Your task to perform on an android device: open app "Messages" (install if not already installed) and enter user name: "Hersey@inbox.com" and password: "facings" Image 0: 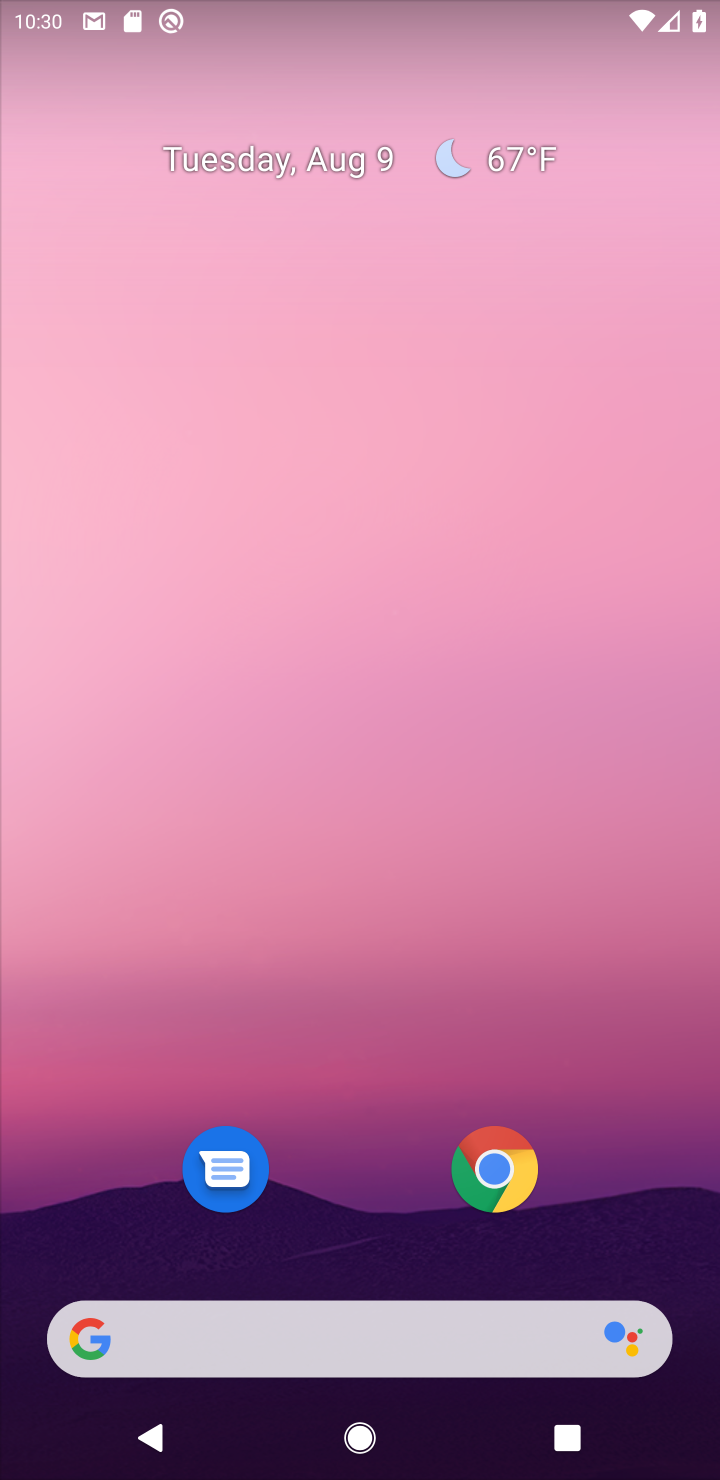
Step 0: press home button
Your task to perform on an android device: open app "Messages" (install if not already installed) and enter user name: "Hersey@inbox.com" and password: "facings" Image 1: 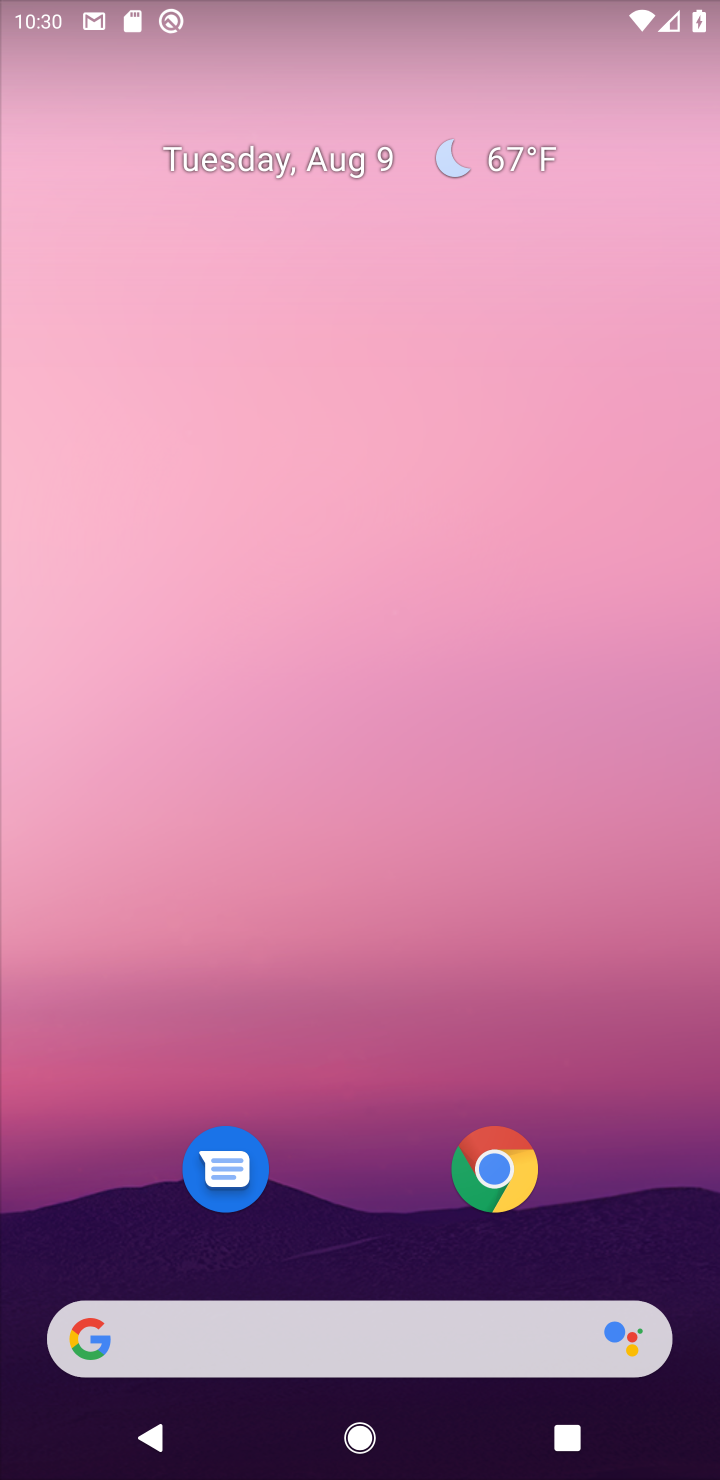
Step 1: drag from (630, 1218) to (675, 116)
Your task to perform on an android device: open app "Messages" (install if not already installed) and enter user name: "Hersey@inbox.com" and password: "facings" Image 2: 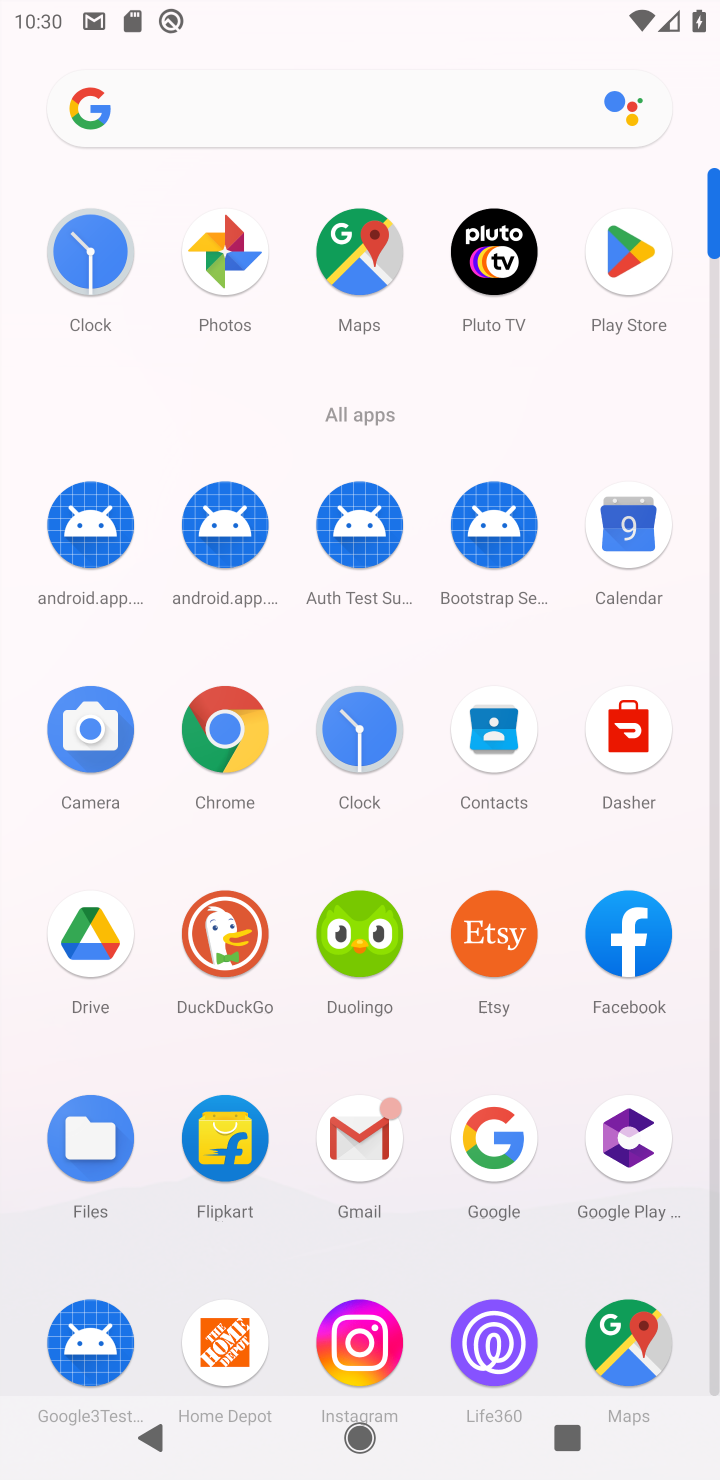
Step 2: click (628, 247)
Your task to perform on an android device: open app "Messages" (install if not already installed) and enter user name: "Hersey@inbox.com" and password: "facings" Image 3: 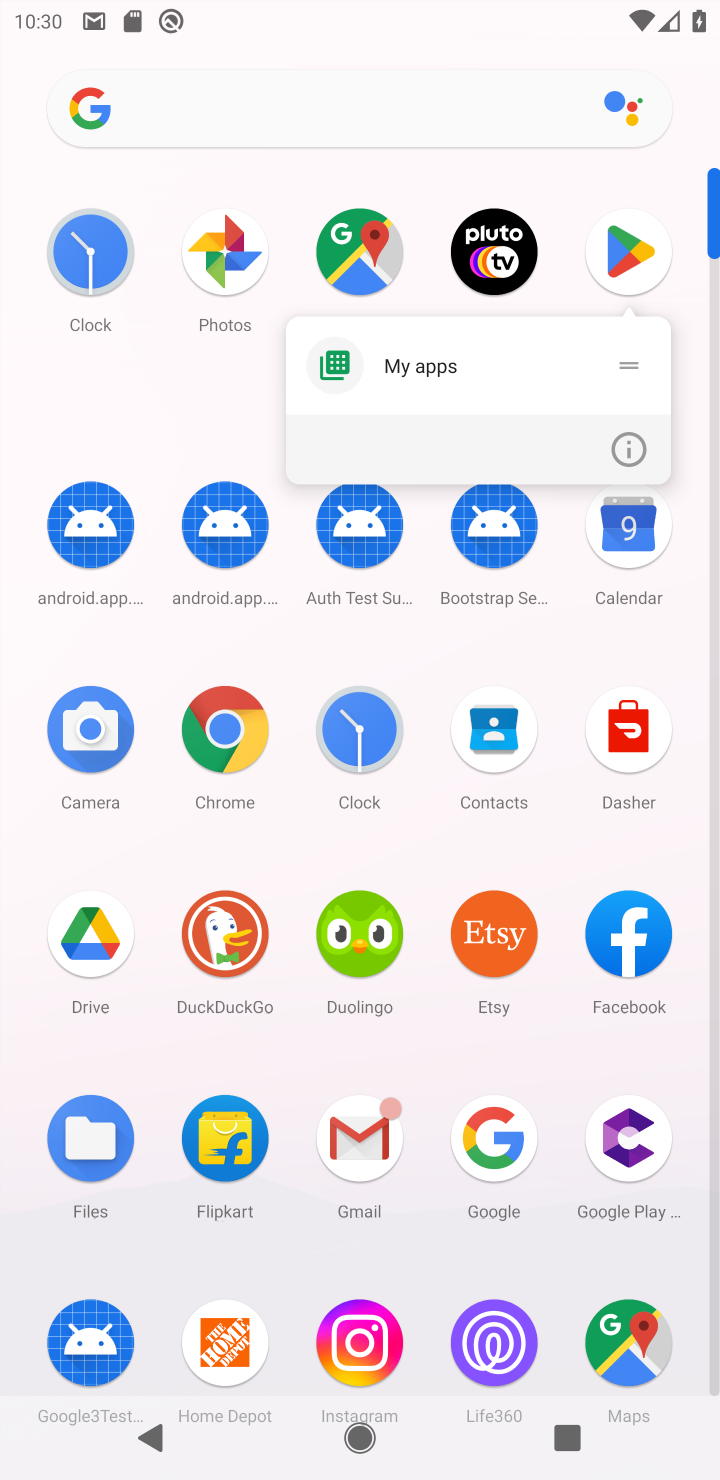
Step 3: click (631, 249)
Your task to perform on an android device: open app "Messages" (install if not already installed) and enter user name: "Hersey@inbox.com" and password: "facings" Image 4: 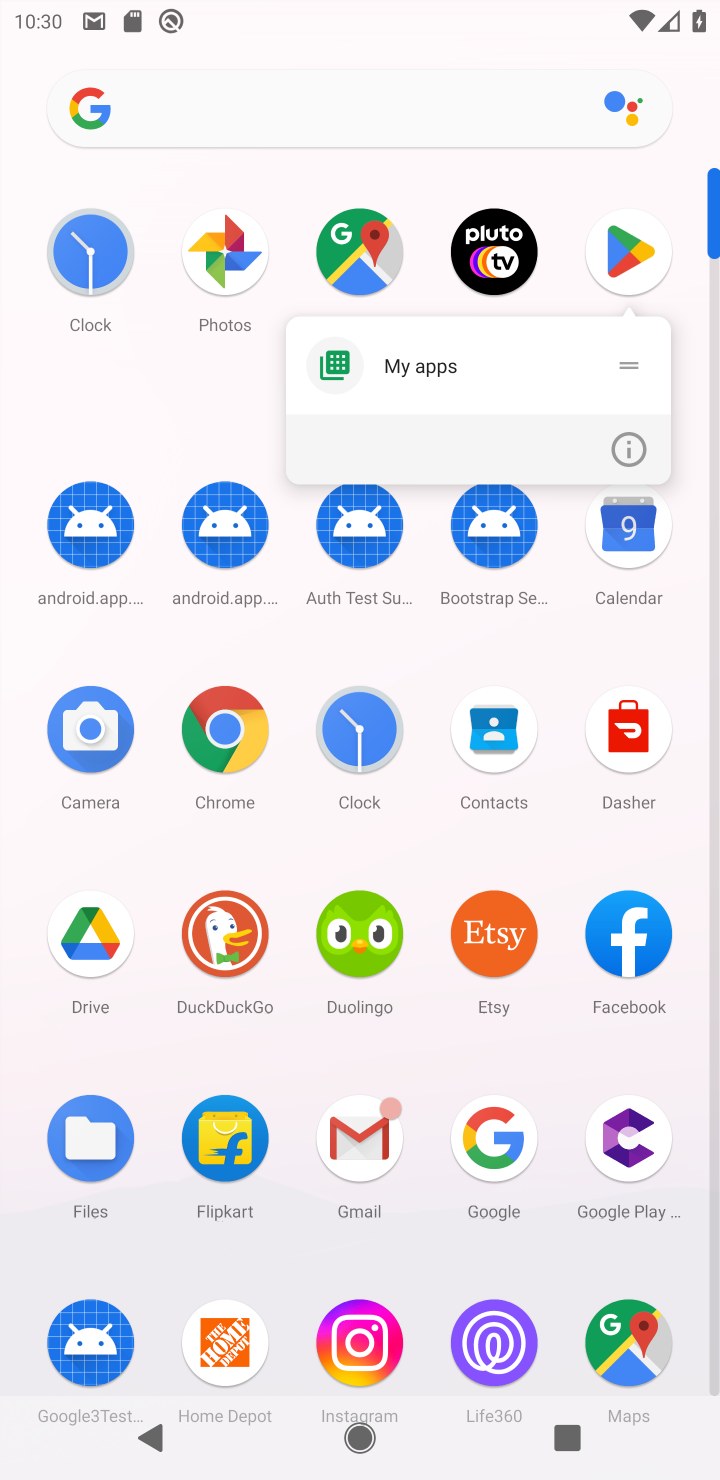
Step 4: click (627, 250)
Your task to perform on an android device: open app "Messages" (install if not already installed) and enter user name: "Hersey@inbox.com" and password: "facings" Image 5: 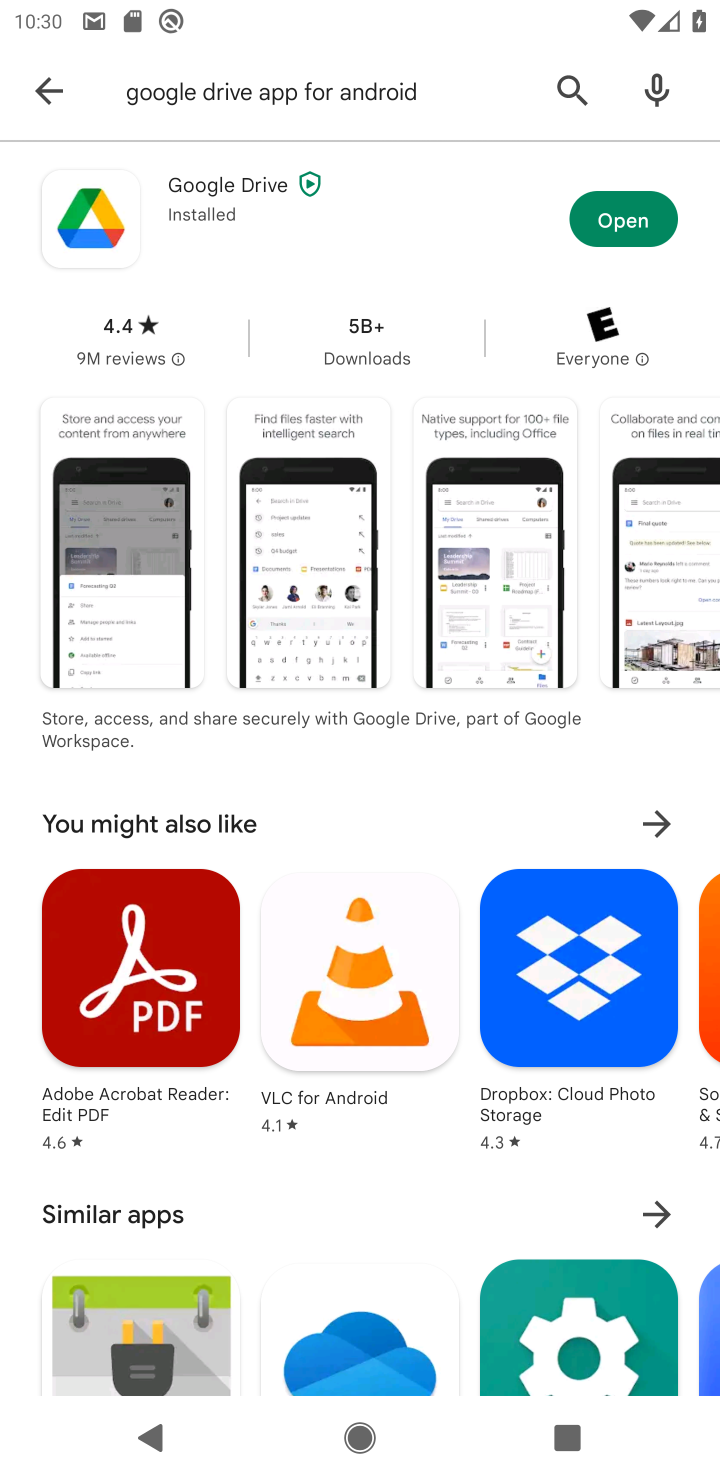
Step 5: press back button
Your task to perform on an android device: open app "Messages" (install if not already installed) and enter user name: "Hersey@inbox.com" and password: "facings" Image 6: 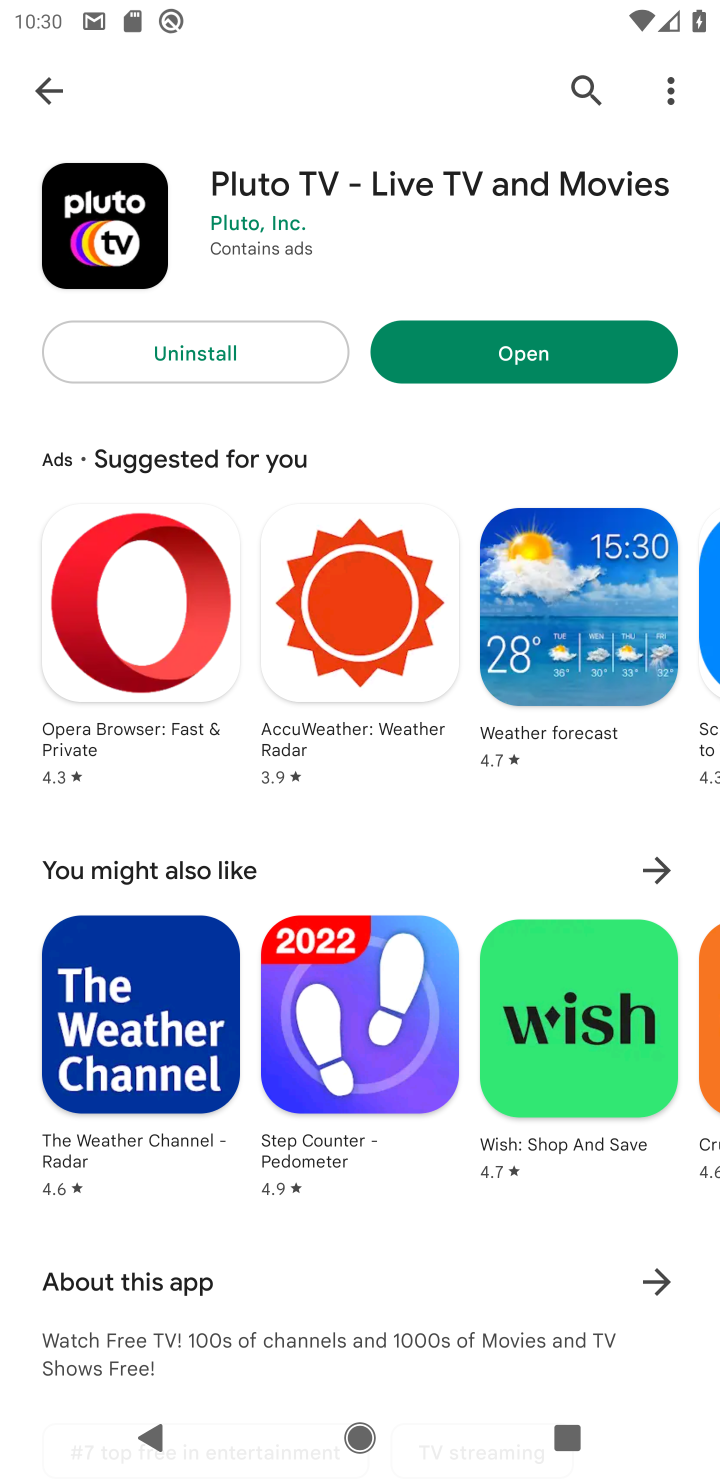
Step 6: press back button
Your task to perform on an android device: open app "Messages" (install if not already installed) and enter user name: "Hersey@inbox.com" and password: "facings" Image 7: 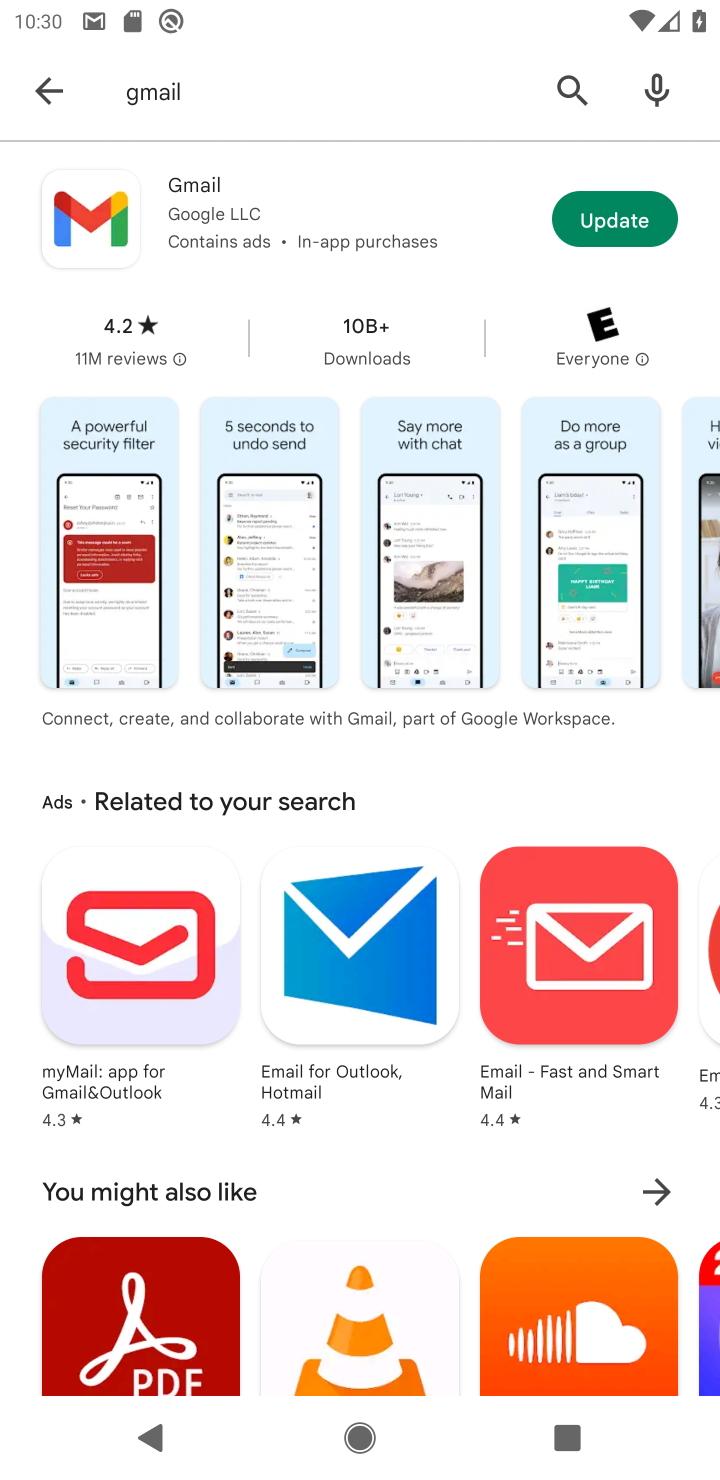
Step 7: click (572, 74)
Your task to perform on an android device: open app "Messages" (install if not already installed) and enter user name: "Hersey@inbox.com" and password: "facings" Image 8: 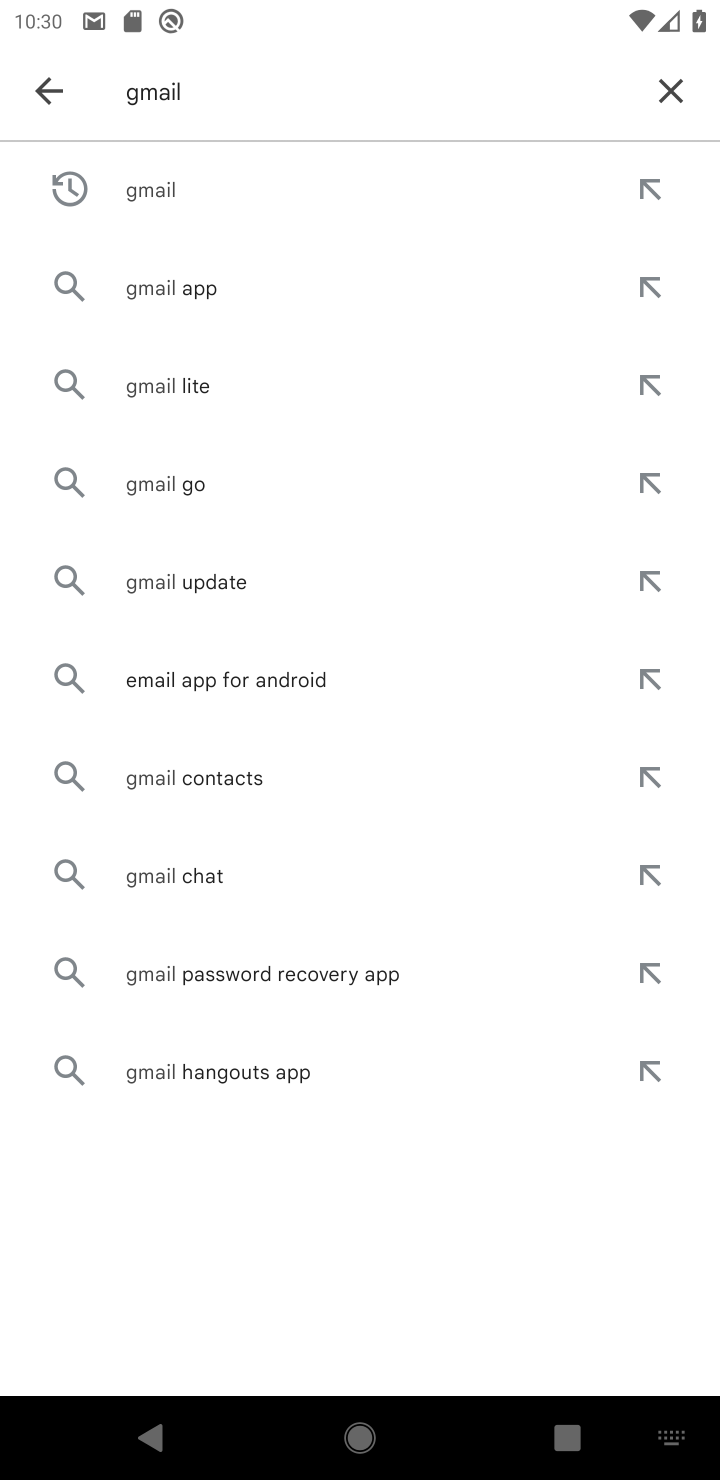
Step 8: click (666, 89)
Your task to perform on an android device: open app "Messages" (install if not already installed) and enter user name: "Hersey@inbox.com" and password: "facings" Image 9: 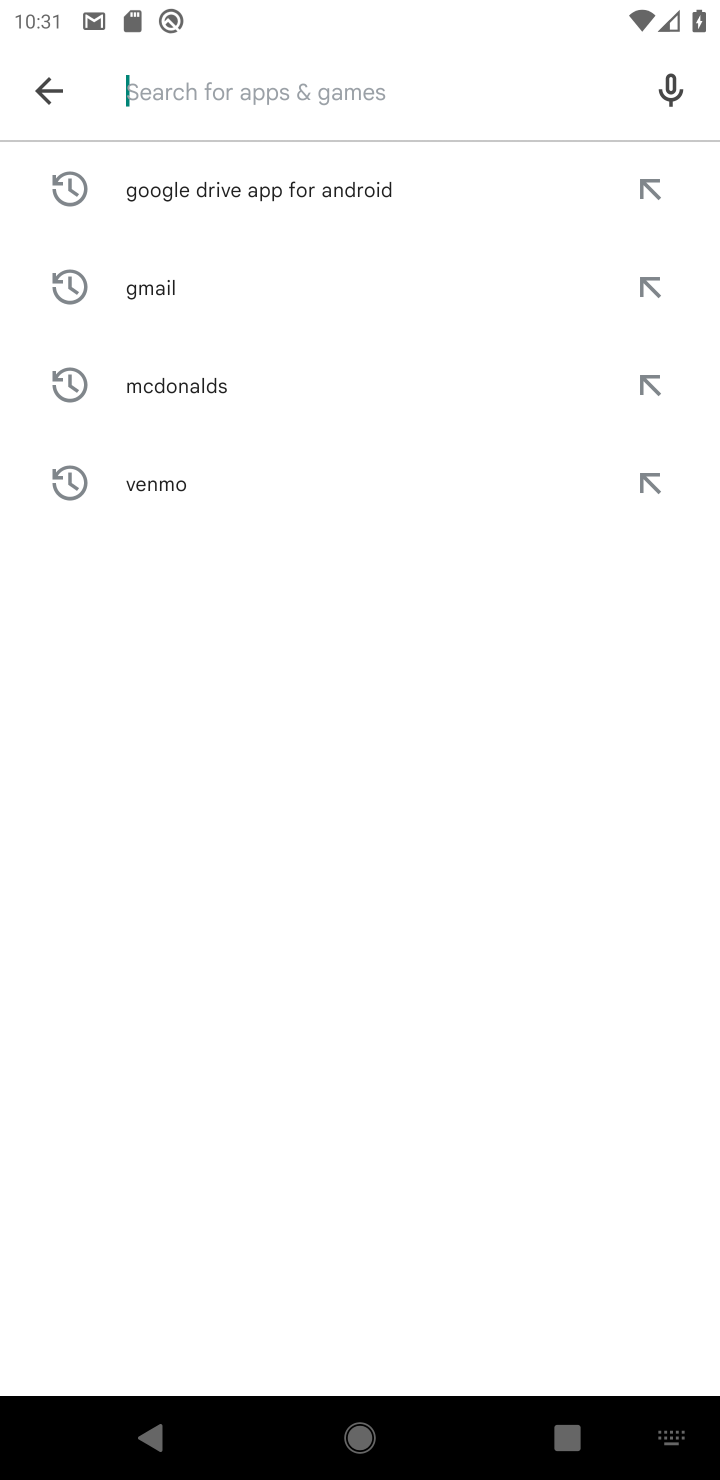
Step 9: type "messages"
Your task to perform on an android device: open app "Messages" (install if not already installed) and enter user name: "Hersey@inbox.com" and password: "facings" Image 10: 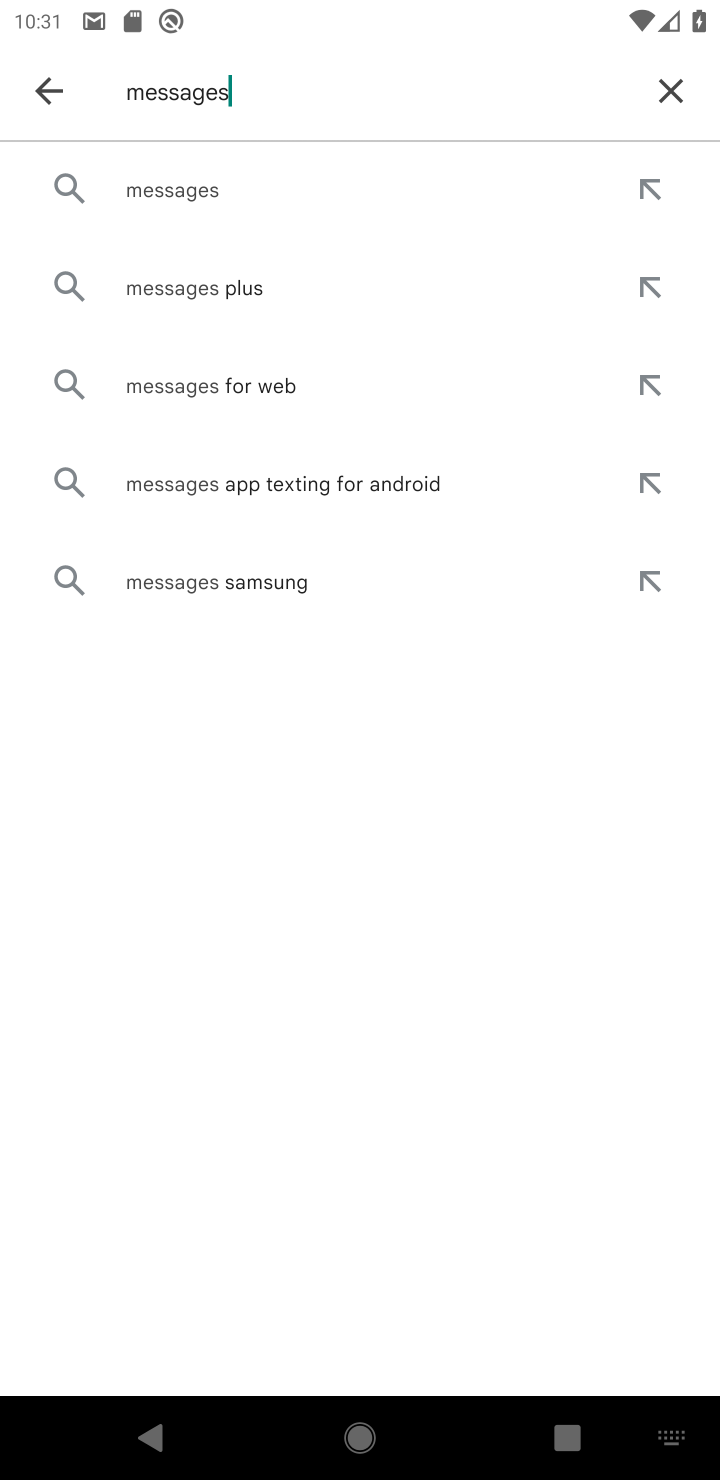
Step 10: click (222, 195)
Your task to perform on an android device: open app "Messages" (install if not already installed) and enter user name: "Hersey@inbox.com" and password: "facings" Image 11: 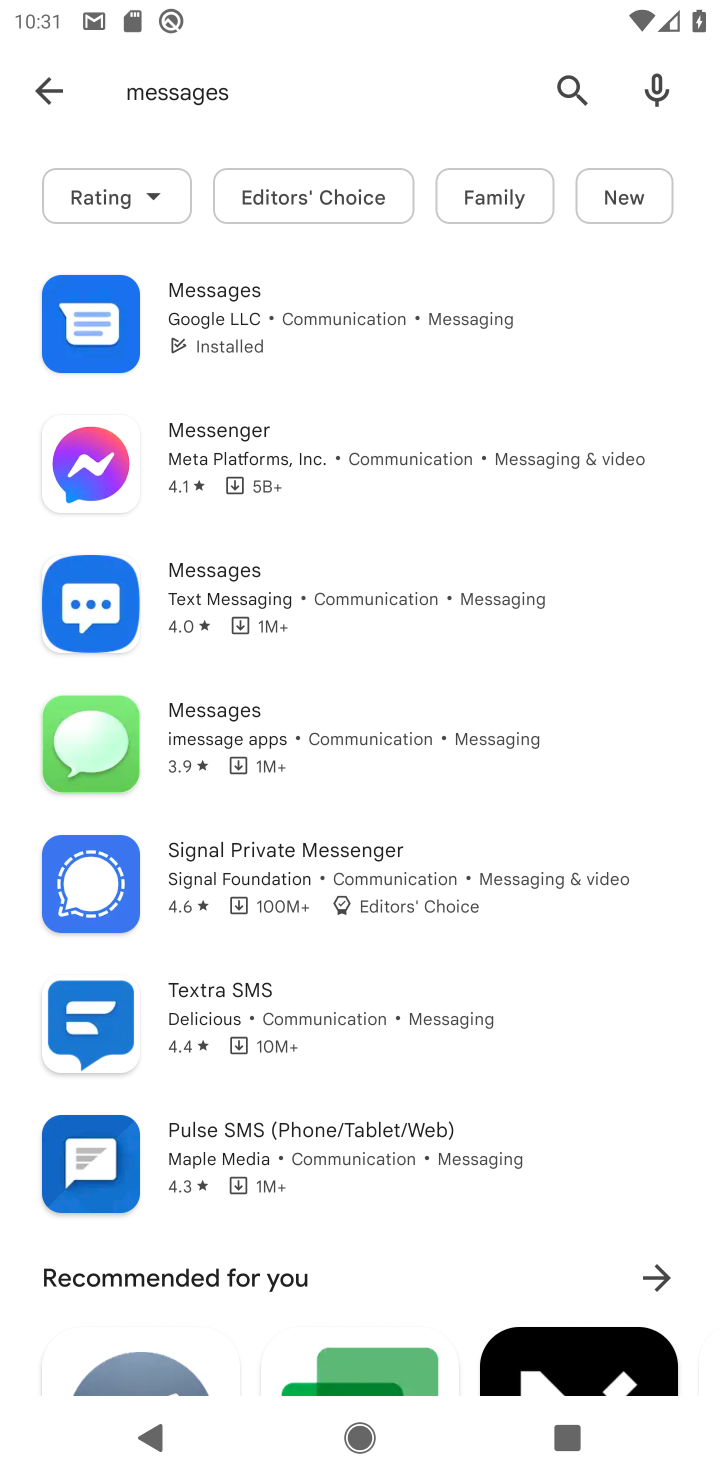
Step 11: task complete